Your task to perform on an android device: turn on wifi Image 0: 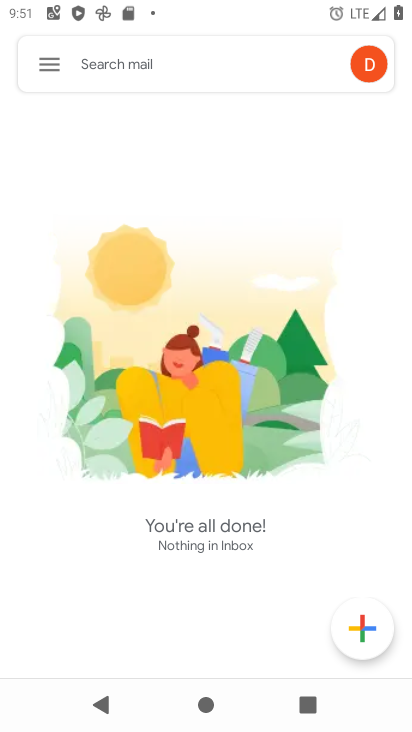
Step 0: press home button
Your task to perform on an android device: turn on wifi Image 1: 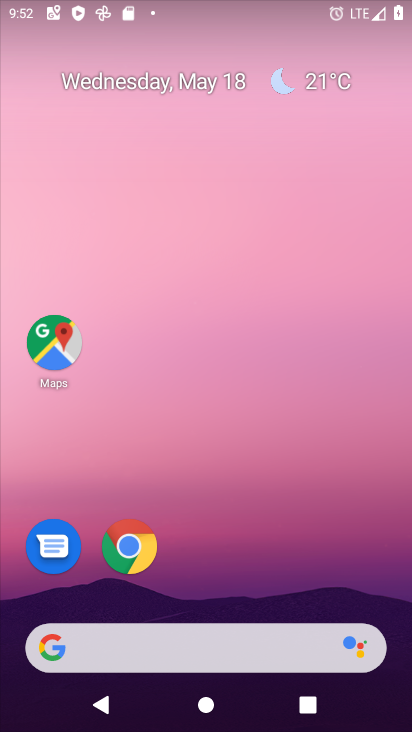
Step 1: drag from (206, 11) to (280, 619)
Your task to perform on an android device: turn on wifi Image 2: 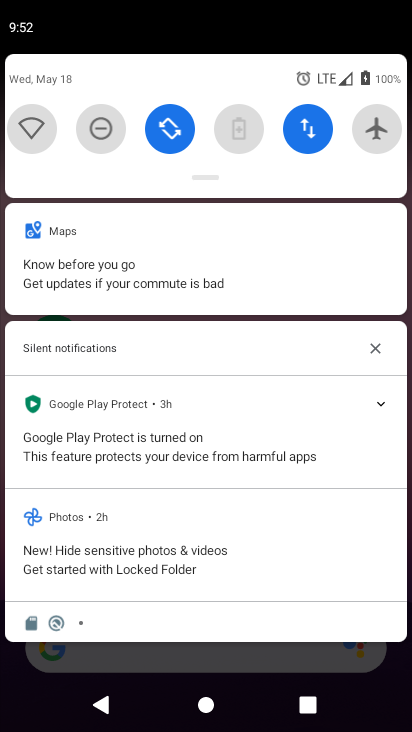
Step 2: click (47, 113)
Your task to perform on an android device: turn on wifi Image 3: 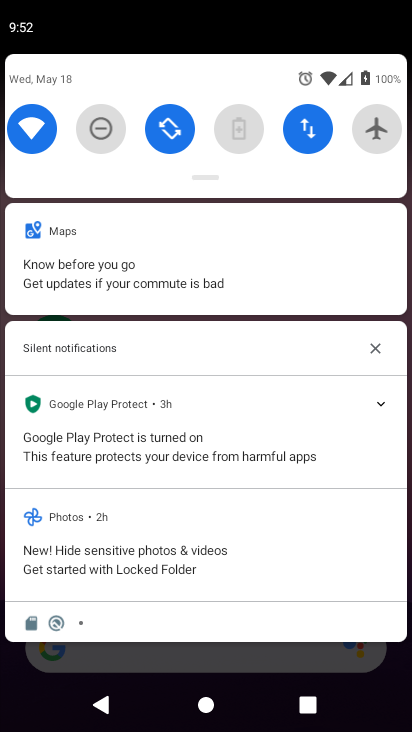
Step 3: task complete